Your task to perform on an android device: turn on bluetooth scan Image 0: 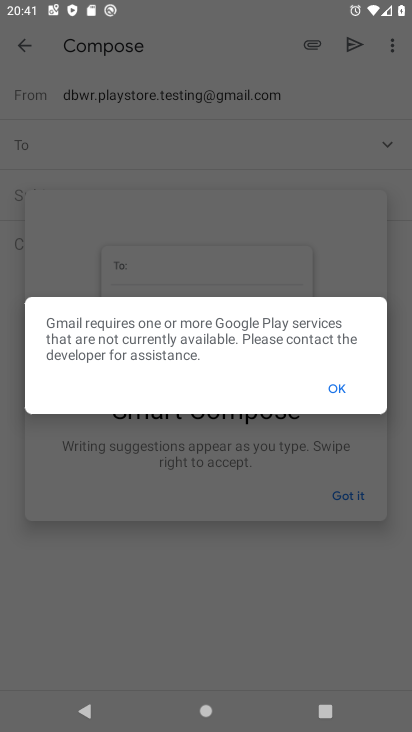
Step 0: press home button
Your task to perform on an android device: turn on bluetooth scan Image 1: 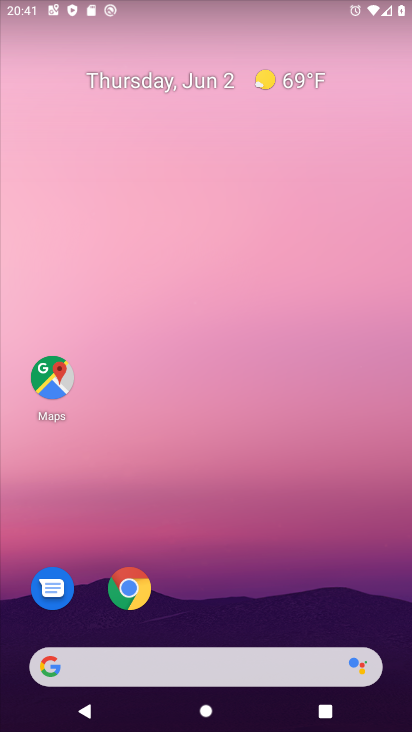
Step 1: drag from (245, 709) to (275, 83)
Your task to perform on an android device: turn on bluetooth scan Image 2: 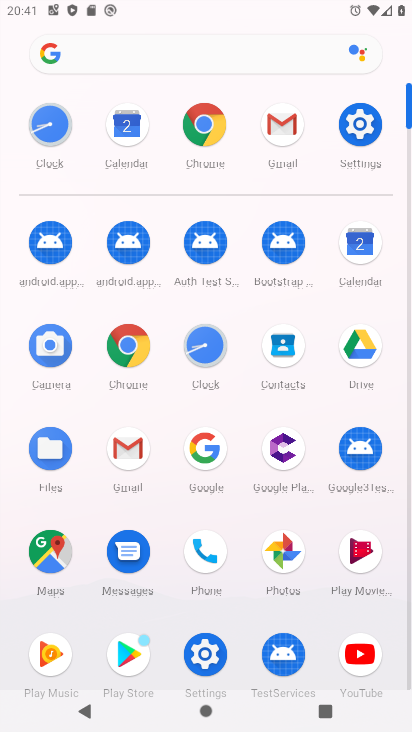
Step 2: click (361, 127)
Your task to perform on an android device: turn on bluetooth scan Image 3: 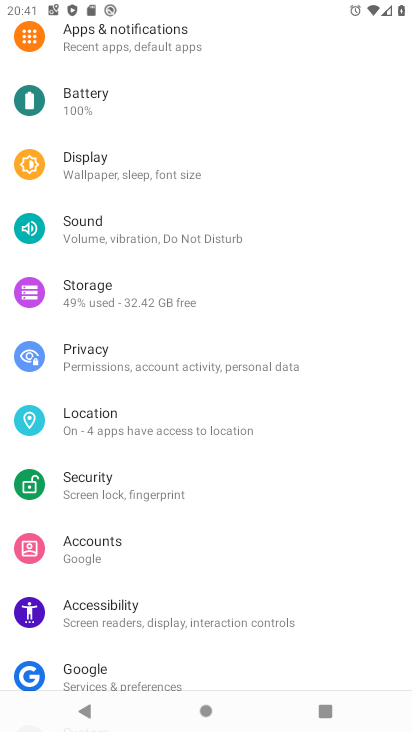
Step 3: drag from (216, 81) to (215, 534)
Your task to perform on an android device: turn on bluetooth scan Image 4: 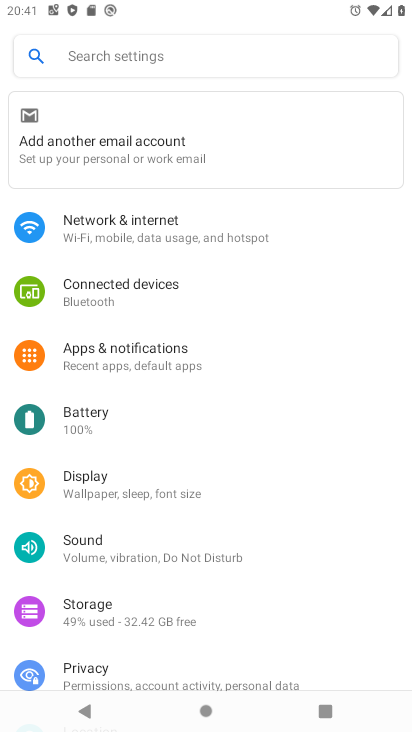
Step 4: drag from (138, 651) to (153, 286)
Your task to perform on an android device: turn on bluetooth scan Image 5: 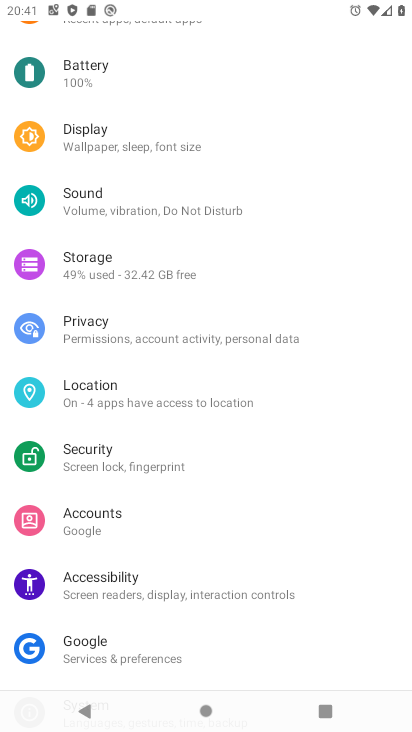
Step 5: click (99, 395)
Your task to perform on an android device: turn on bluetooth scan Image 6: 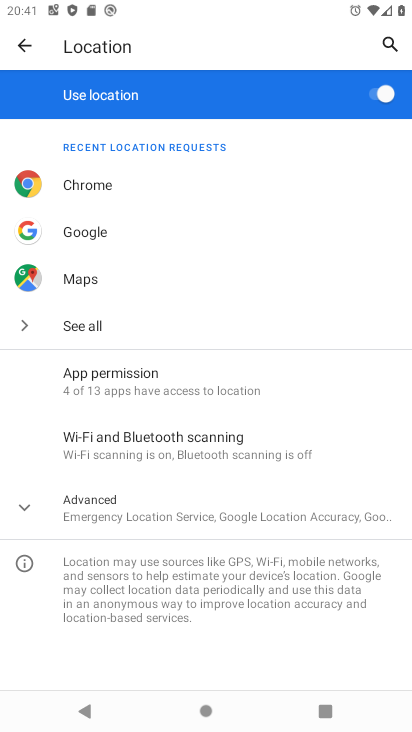
Step 6: click (192, 448)
Your task to perform on an android device: turn on bluetooth scan Image 7: 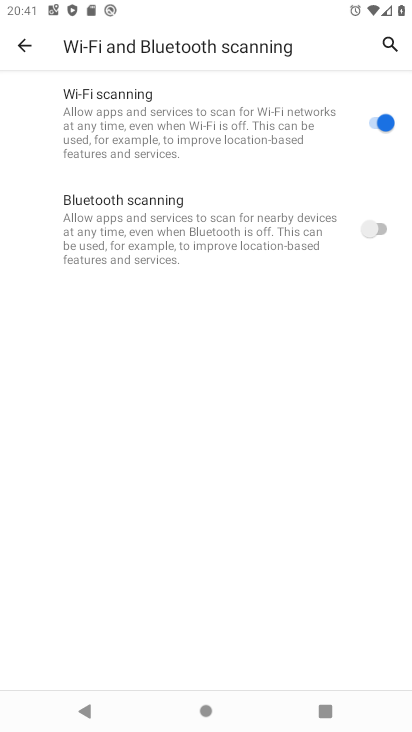
Step 7: click (379, 228)
Your task to perform on an android device: turn on bluetooth scan Image 8: 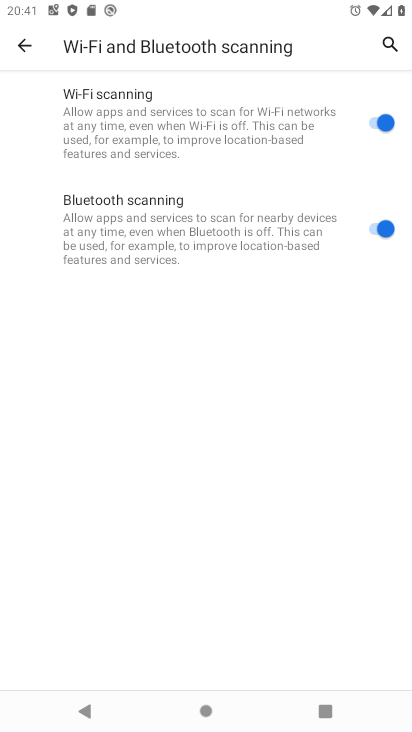
Step 8: task complete